Your task to perform on an android device: What's on my calendar today? Image 0: 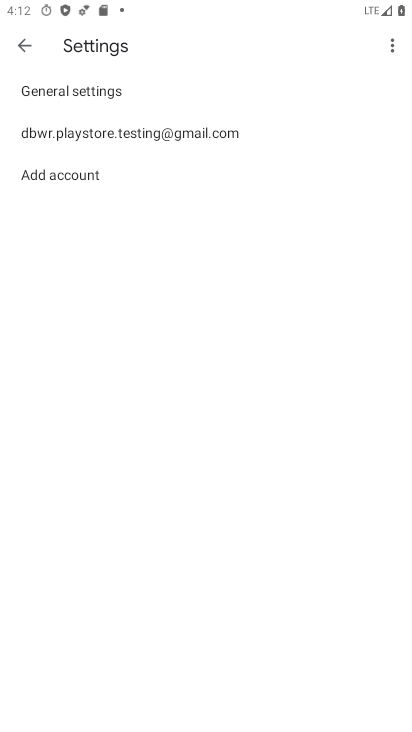
Step 0: press home button
Your task to perform on an android device: What's on my calendar today? Image 1: 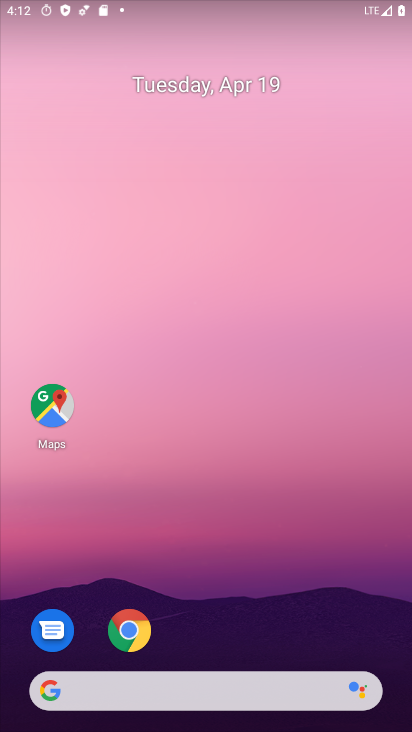
Step 1: drag from (220, 628) to (220, 253)
Your task to perform on an android device: What's on my calendar today? Image 2: 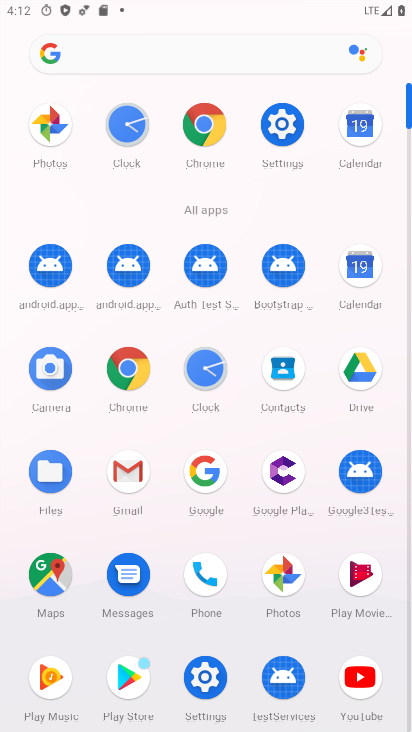
Step 2: click (349, 251)
Your task to perform on an android device: What's on my calendar today? Image 3: 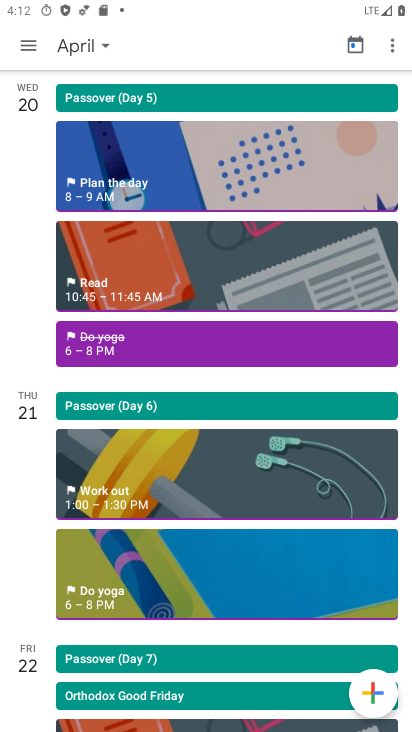
Step 3: click (71, 43)
Your task to perform on an android device: What's on my calendar today? Image 4: 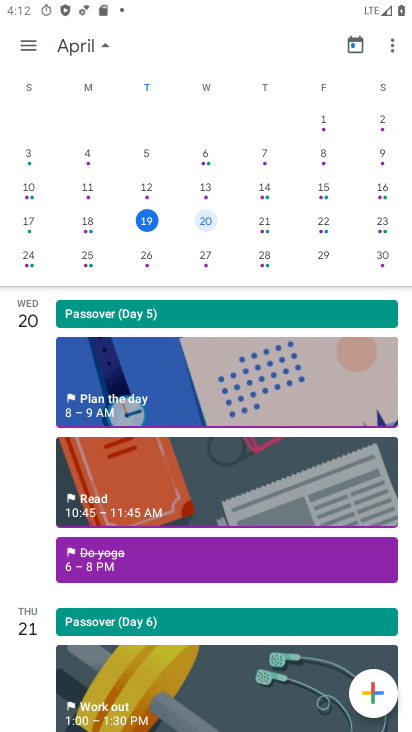
Step 4: click (142, 212)
Your task to perform on an android device: What's on my calendar today? Image 5: 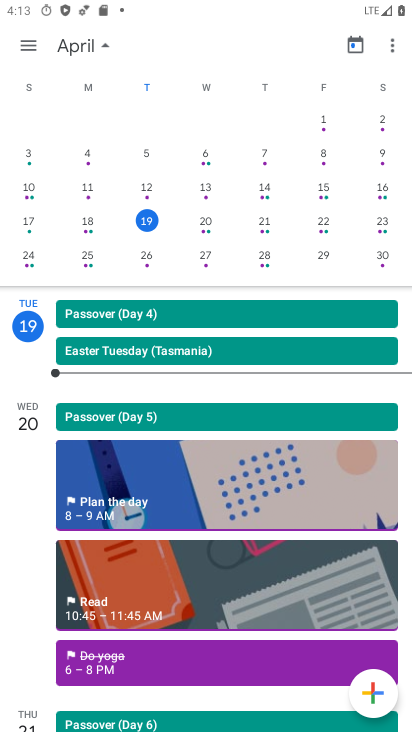
Step 5: task complete